Your task to perform on an android device: Go to ESPN.com Image 0: 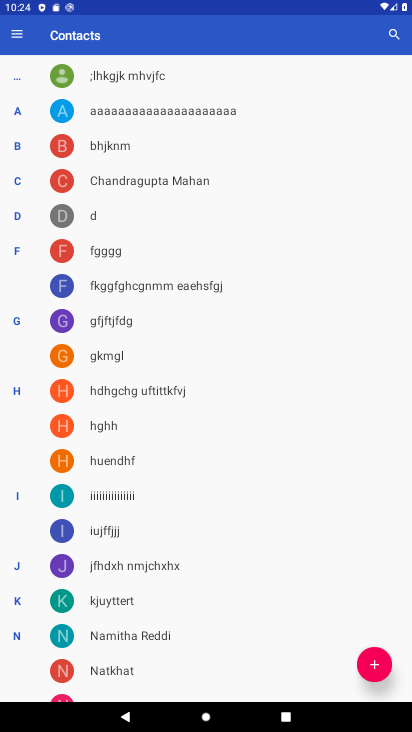
Step 0: press home button
Your task to perform on an android device: Go to ESPN.com Image 1: 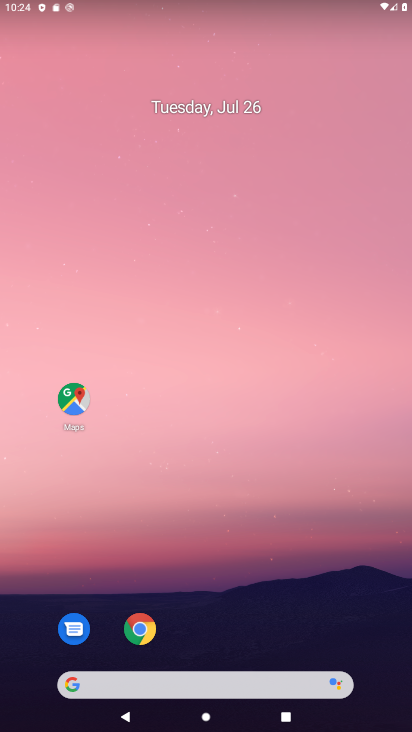
Step 1: drag from (382, 595) to (177, 53)
Your task to perform on an android device: Go to ESPN.com Image 2: 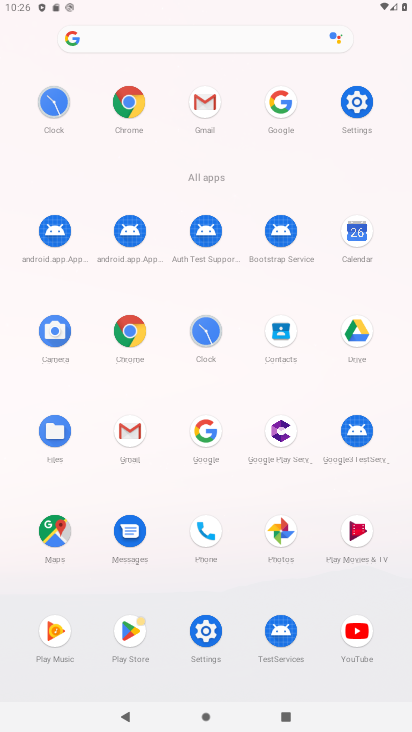
Step 2: click (198, 430)
Your task to perform on an android device: Go to ESPN.com Image 3: 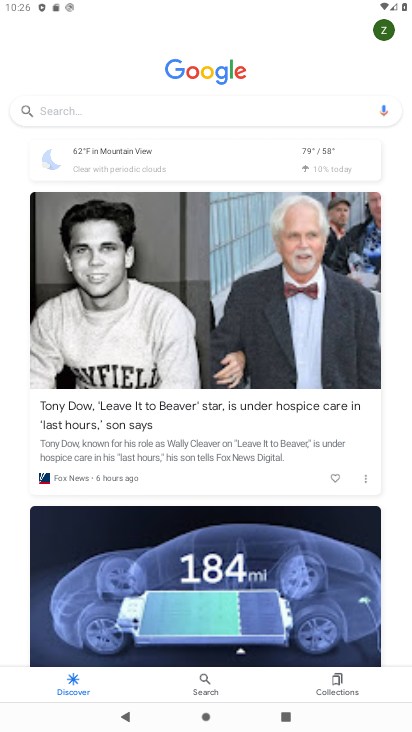
Step 3: click (95, 119)
Your task to perform on an android device: Go to ESPN.com Image 4: 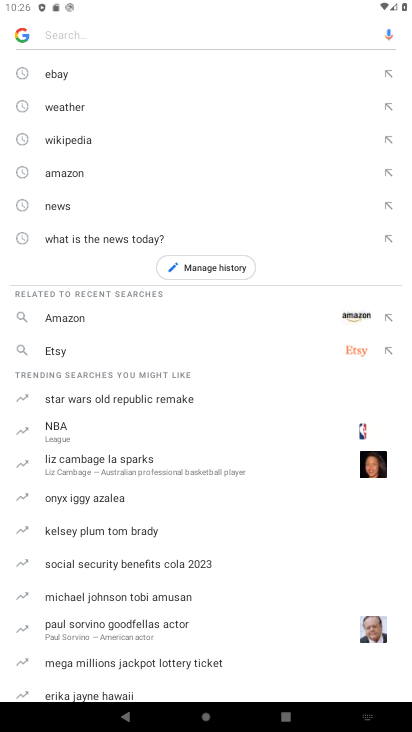
Step 4: type "ESPN.com"
Your task to perform on an android device: Go to ESPN.com Image 5: 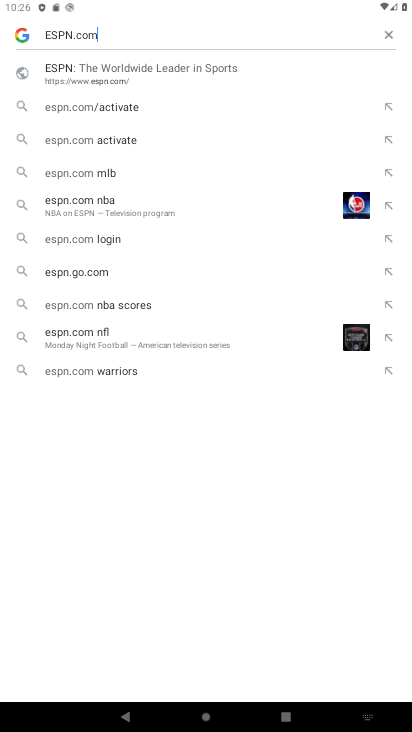
Step 5: click (78, 64)
Your task to perform on an android device: Go to ESPN.com Image 6: 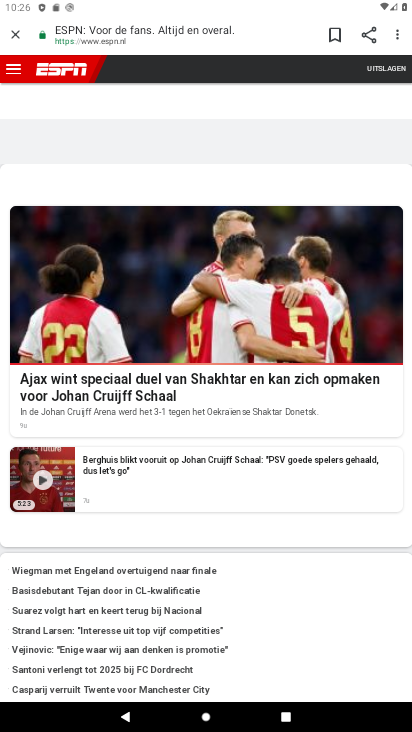
Step 6: task complete